Your task to perform on an android device: Open Google Image 0: 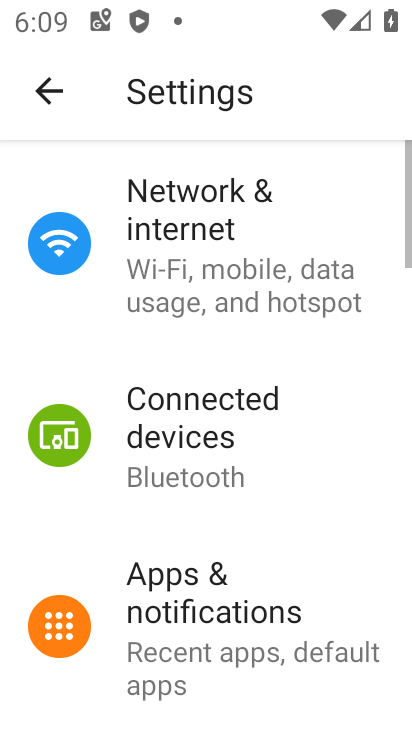
Step 0: press home button
Your task to perform on an android device: Open Google Image 1: 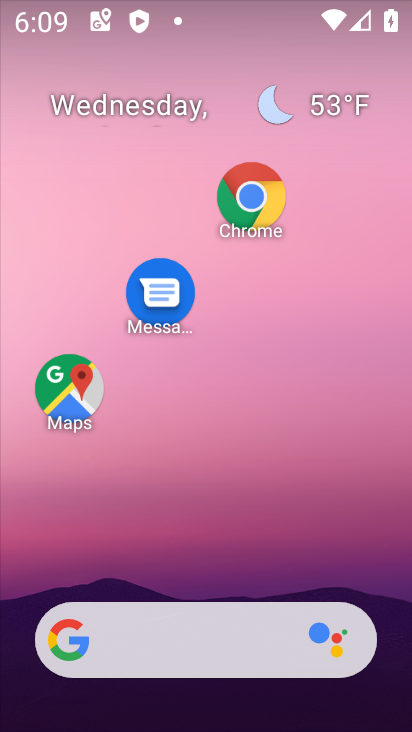
Step 1: drag from (199, 561) to (186, 142)
Your task to perform on an android device: Open Google Image 2: 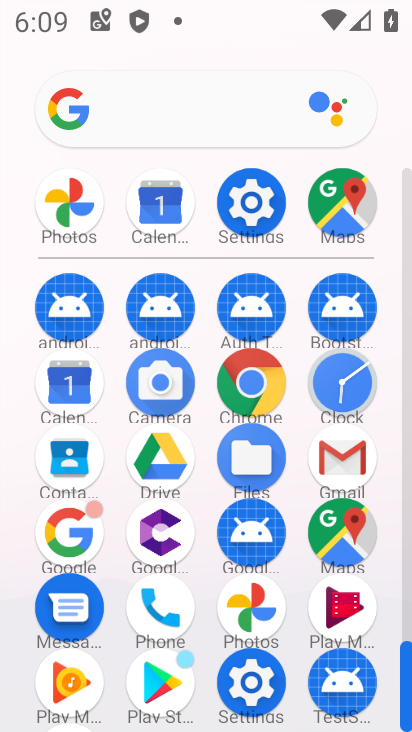
Step 2: click (66, 534)
Your task to perform on an android device: Open Google Image 3: 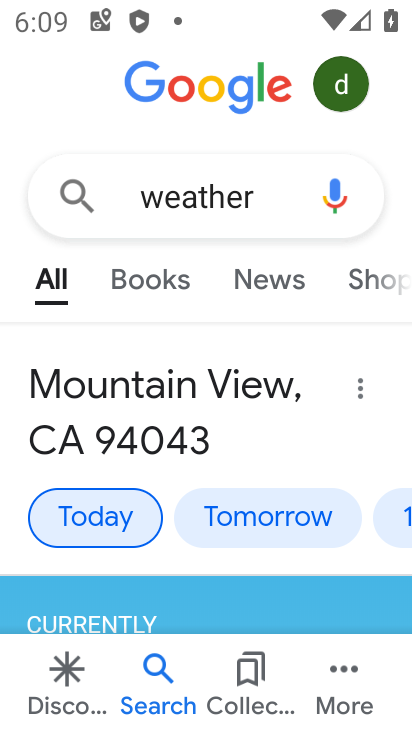
Step 3: task complete